Your task to perform on an android device: Clear the shopping cart on target. Add razer nari to the cart on target Image 0: 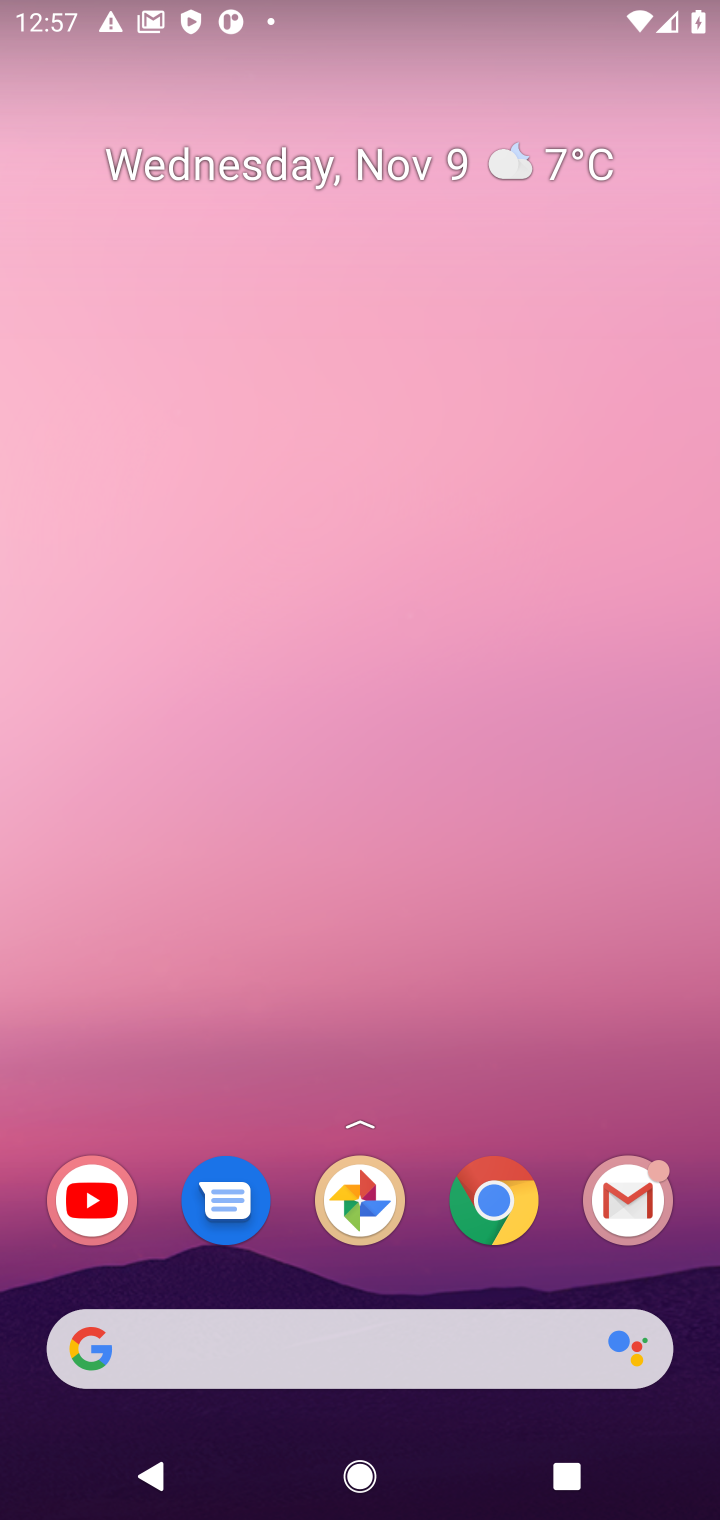
Step 0: click (453, 1361)
Your task to perform on an android device: Clear the shopping cart on target. Add razer nari to the cart on target Image 1: 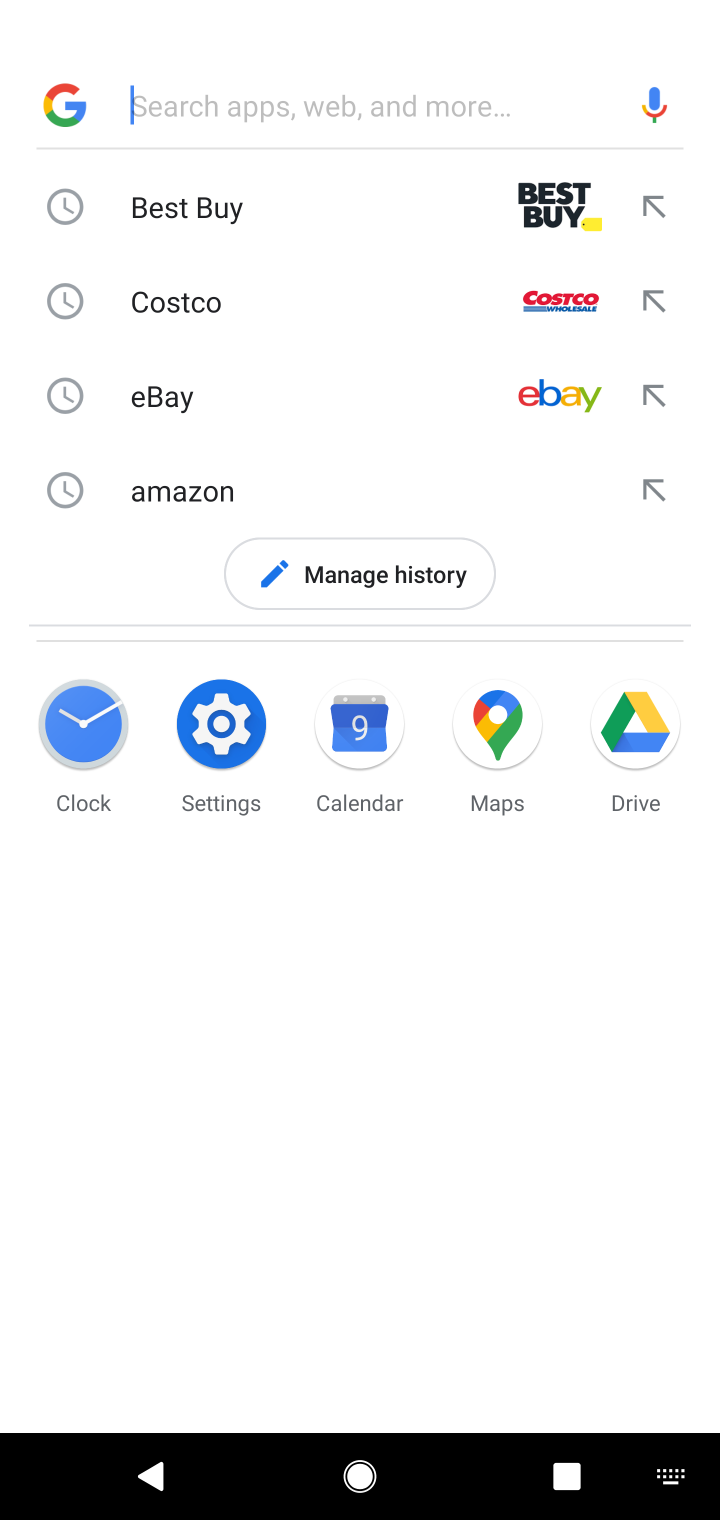
Step 1: type "target"
Your task to perform on an android device: Clear the shopping cart on target. Add razer nari to the cart on target Image 2: 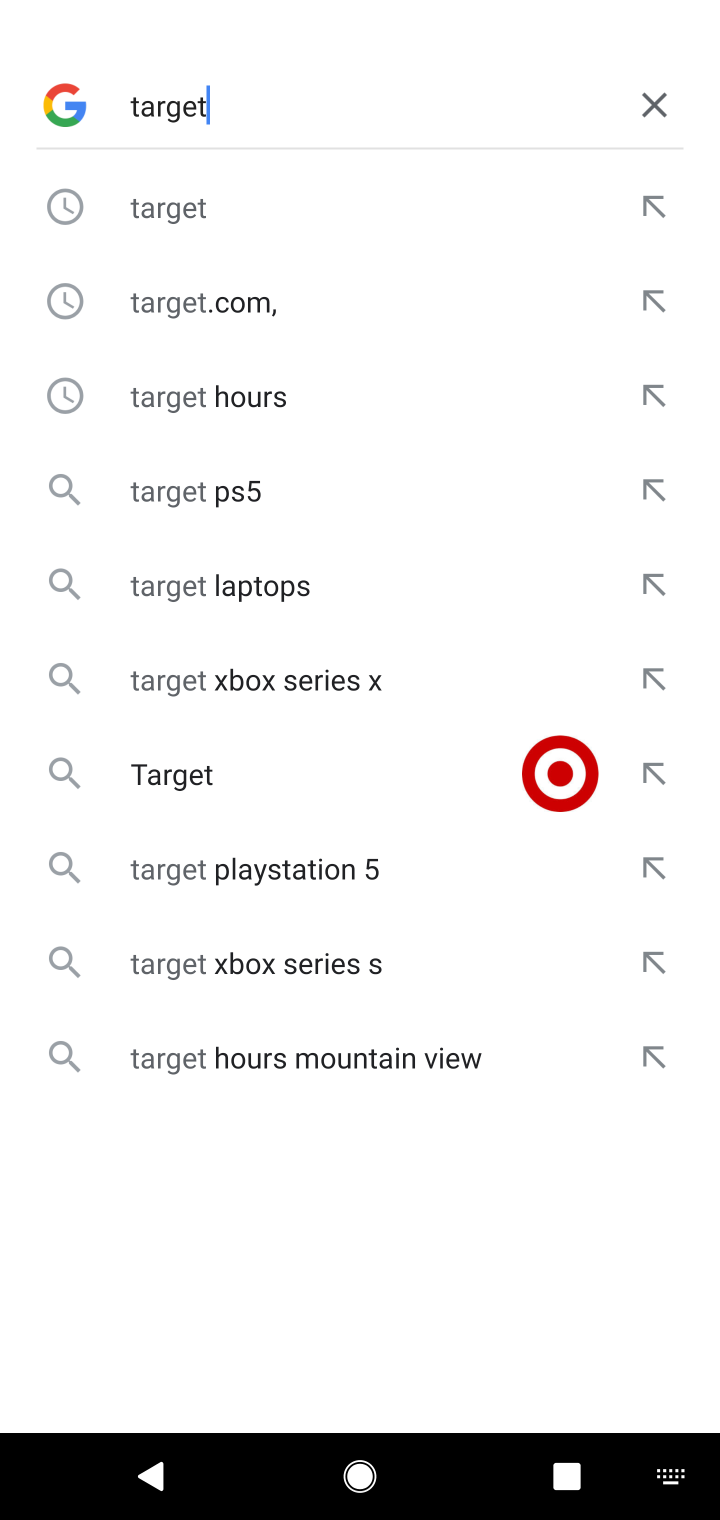
Step 2: click (330, 807)
Your task to perform on an android device: Clear the shopping cart on target. Add razer nari to the cart on target Image 3: 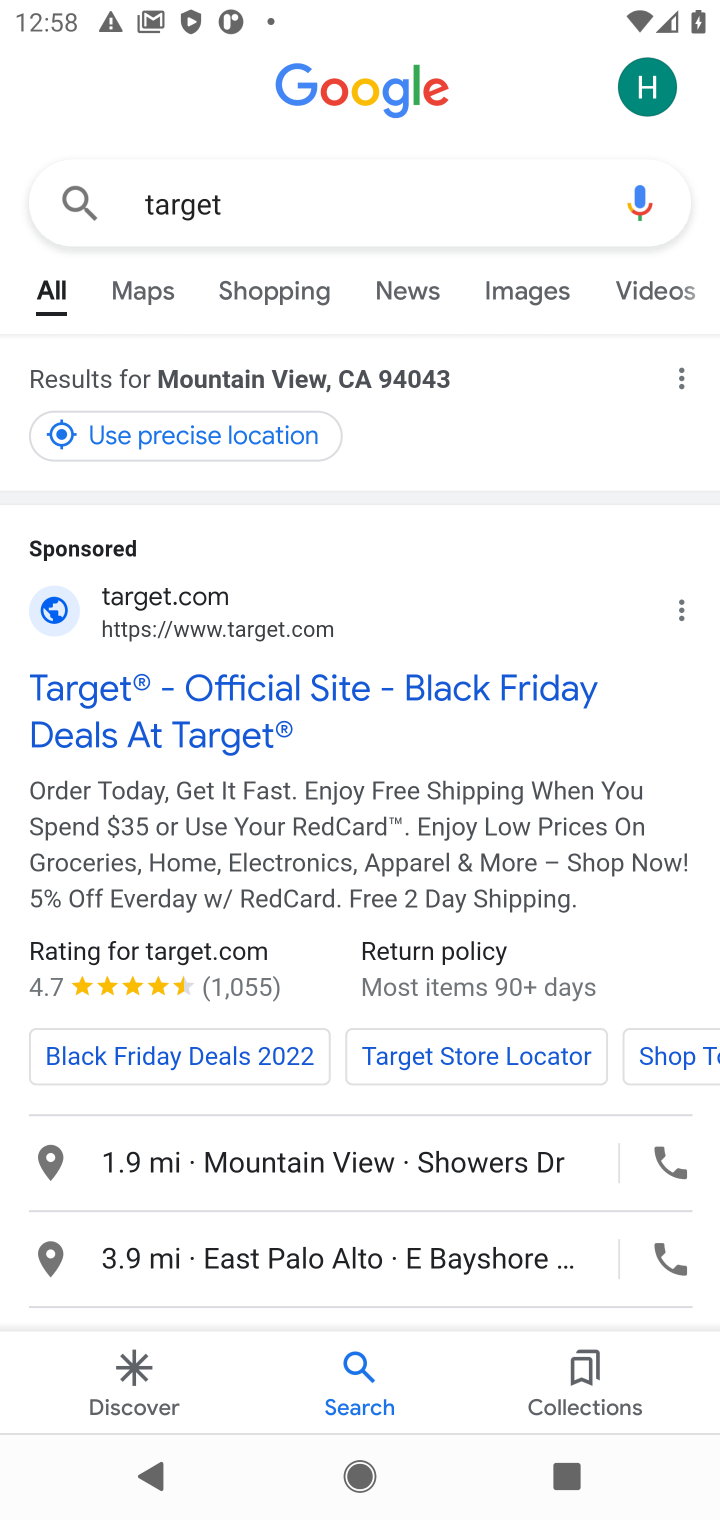
Step 3: click (316, 708)
Your task to perform on an android device: Clear the shopping cart on target. Add razer nari to the cart on target Image 4: 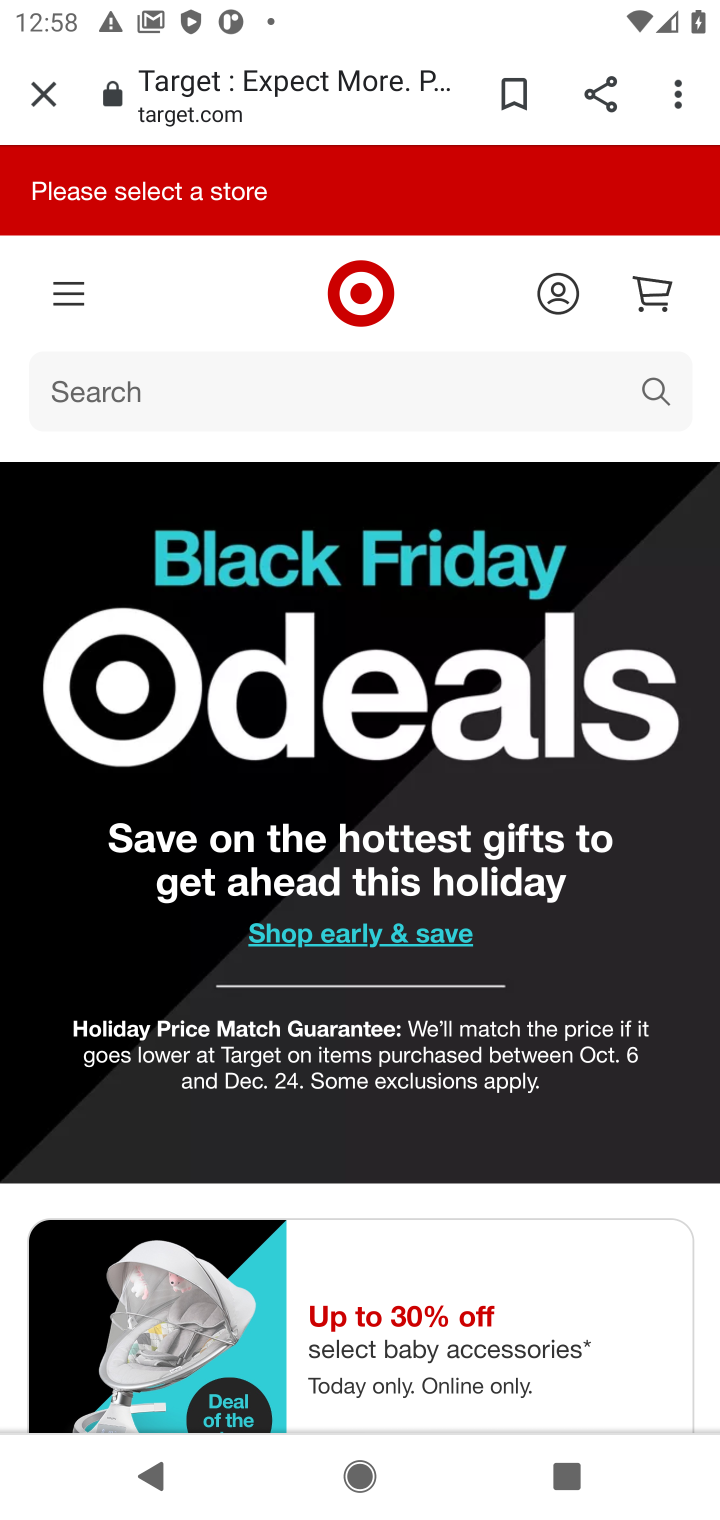
Step 4: click (292, 405)
Your task to perform on an android device: Clear the shopping cart on target. Add razer nari to the cart on target Image 5: 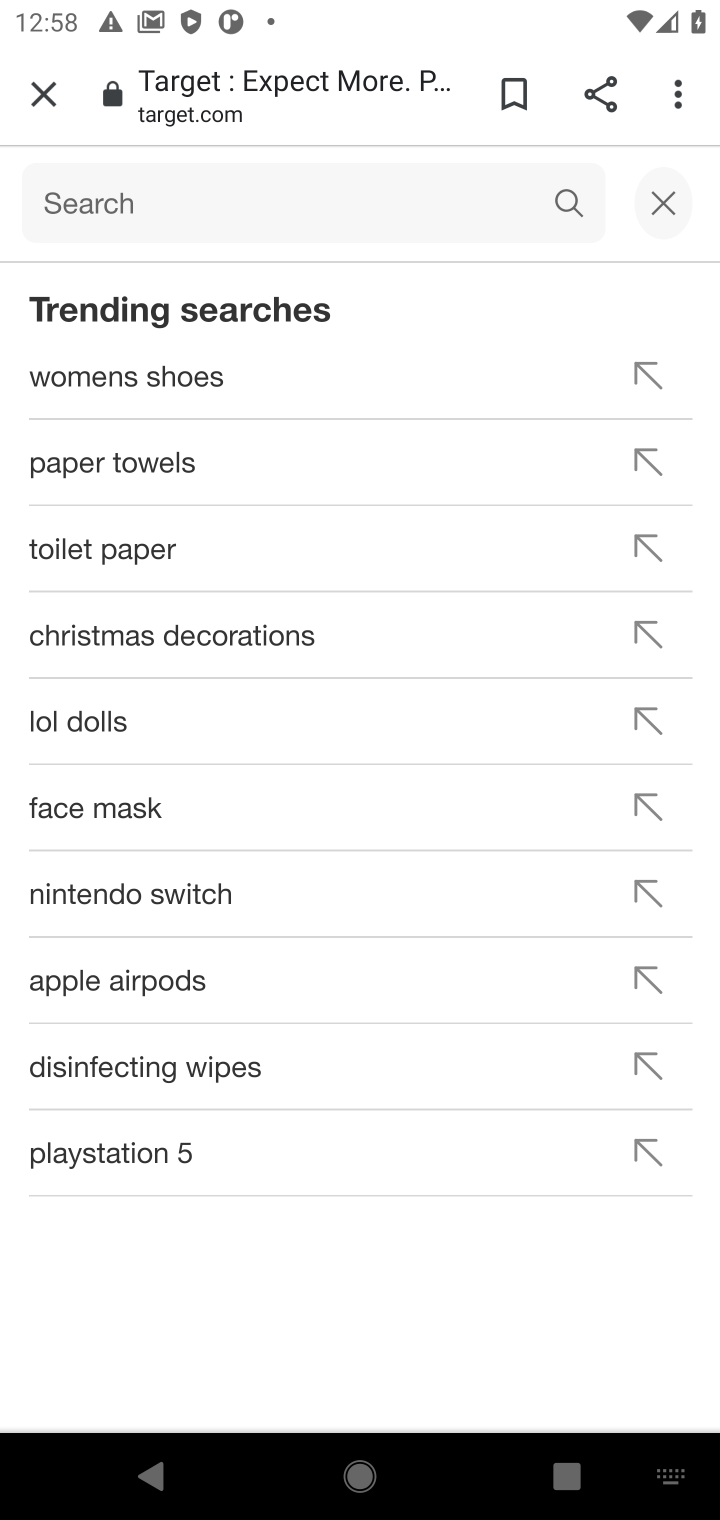
Step 5: task complete